Your task to perform on an android device: Go to notification settings Image 0: 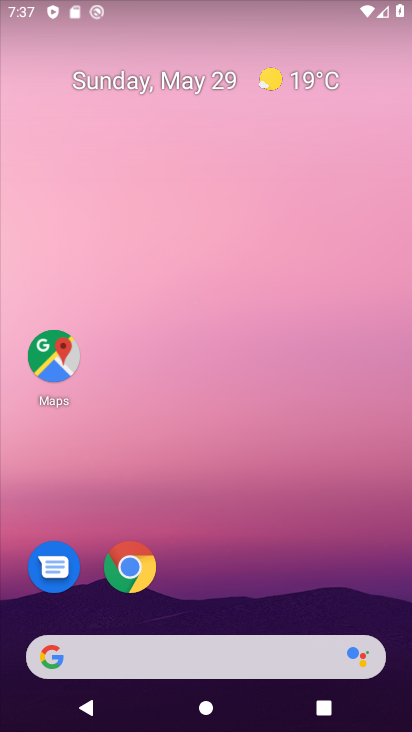
Step 0: drag from (398, 687) to (353, 103)
Your task to perform on an android device: Go to notification settings Image 1: 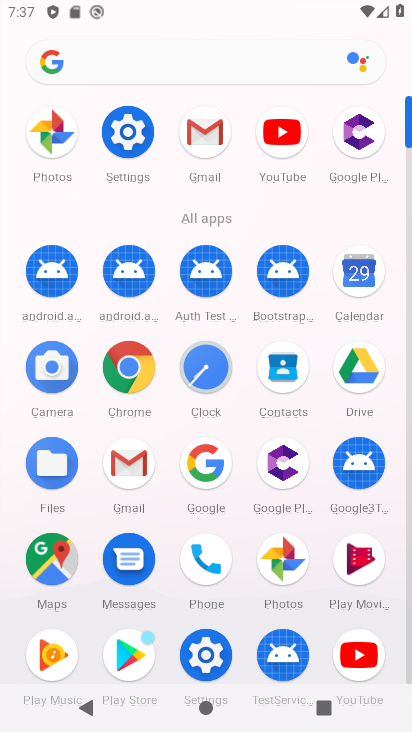
Step 1: click (129, 134)
Your task to perform on an android device: Go to notification settings Image 2: 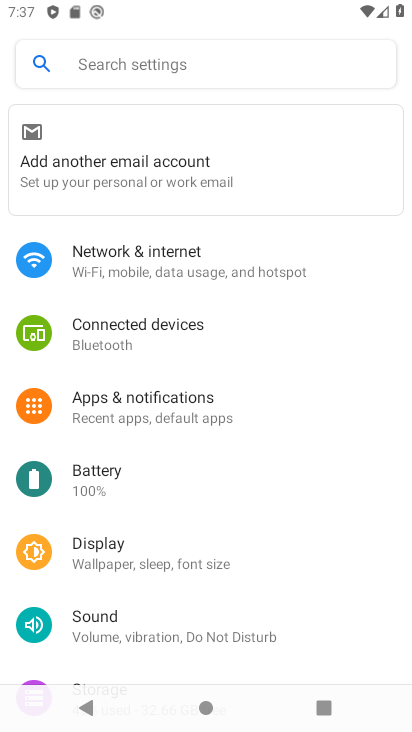
Step 2: click (148, 397)
Your task to perform on an android device: Go to notification settings Image 3: 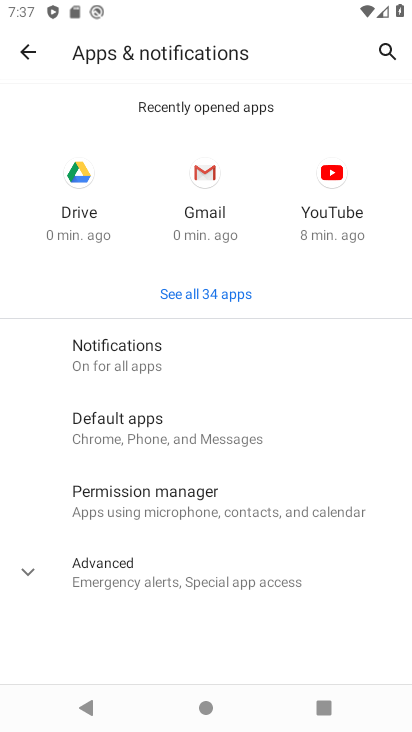
Step 3: click (118, 357)
Your task to perform on an android device: Go to notification settings Image 4: 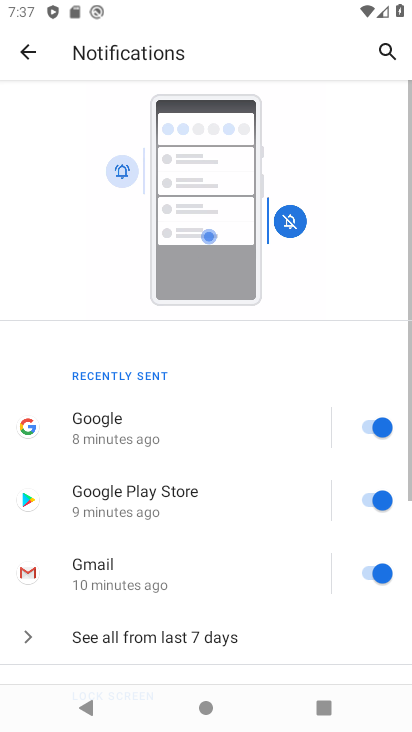
Step 4: drag from (281, 641) to (266, 207)
Your task to perform on an android device: Go to notification settings Image 5: 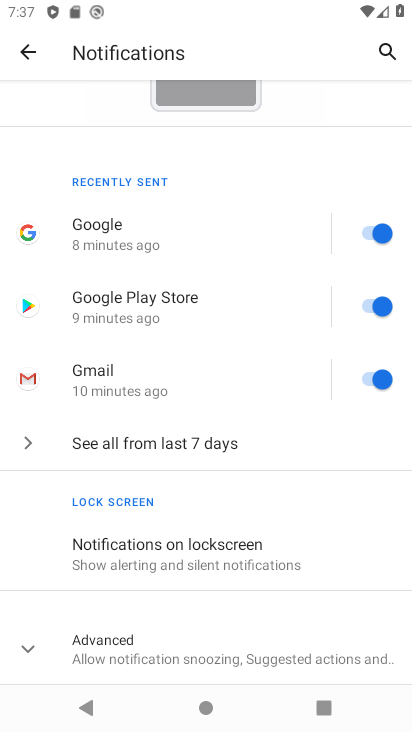
Step 5: drag from (268, 625) to (251, 161)
Your task to perform on an android device: Go to notification settings Image 6: 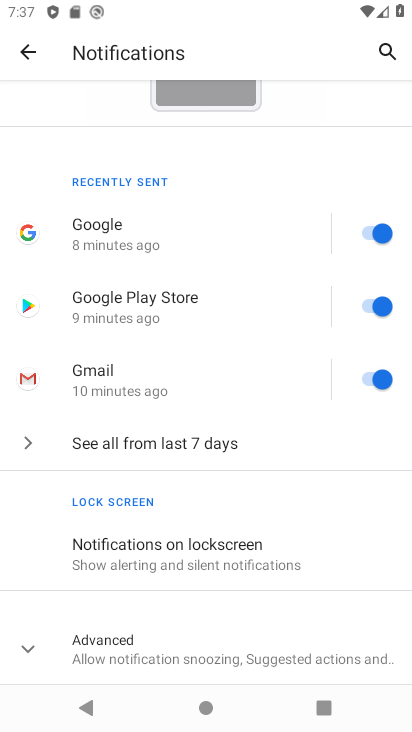
Step 6: click (21, 644)
Your task to perform on an android device: Go to notification settings Image 7: 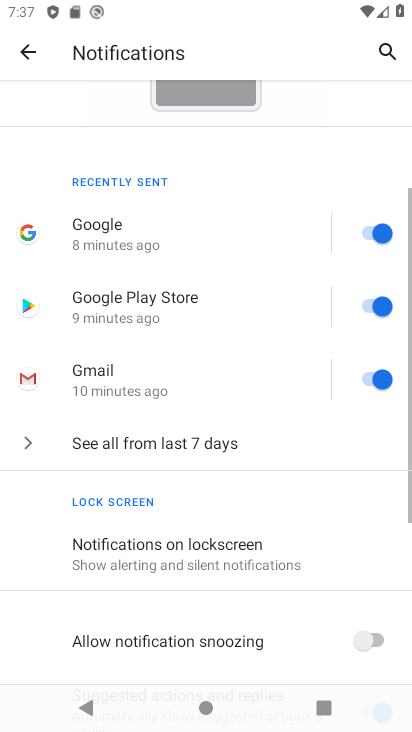
Step 7: task complete